Your task to perform on an android device: find which apps use the phone's location Image 0: 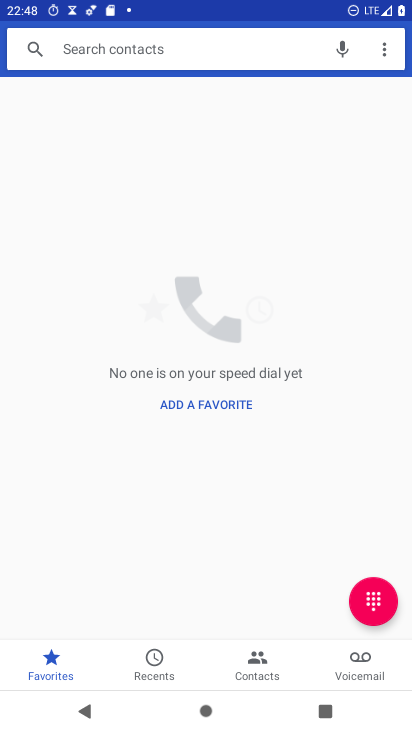
Step 0: press back button
Your task to perform on an android device: find which apps use the phone's location Image 1: 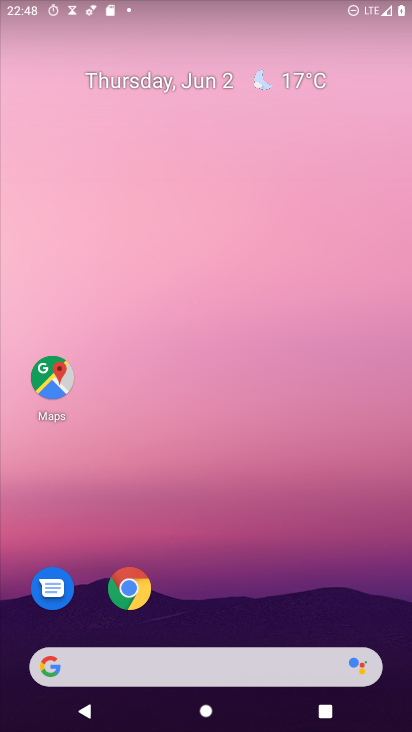
Step 1: drag from (232, 623) to (257, 104)
Your task to perform on an android device: find which apps use the phone's location Image 2: 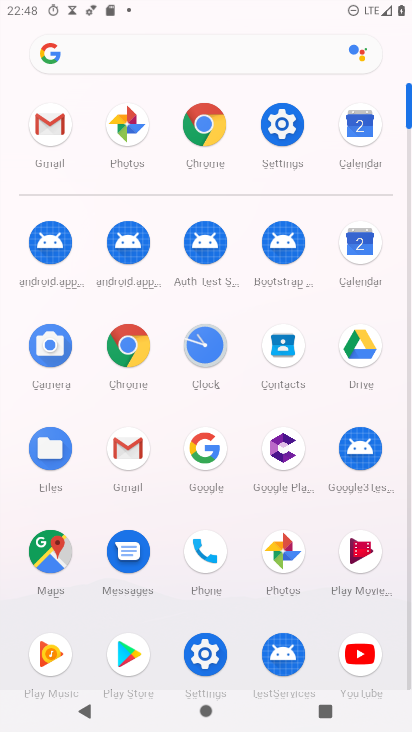
Step 2: click (205, 661)
Your task to perform on an android device: find which apps use the phone's location Image 3: 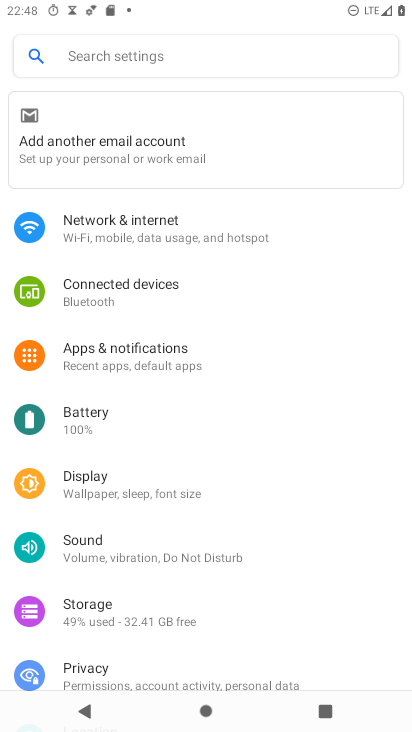
Step 3: drag from (111, 615) to (193, 131)
Your task to perform on an android device: find which apps use the phone's location Image 4: 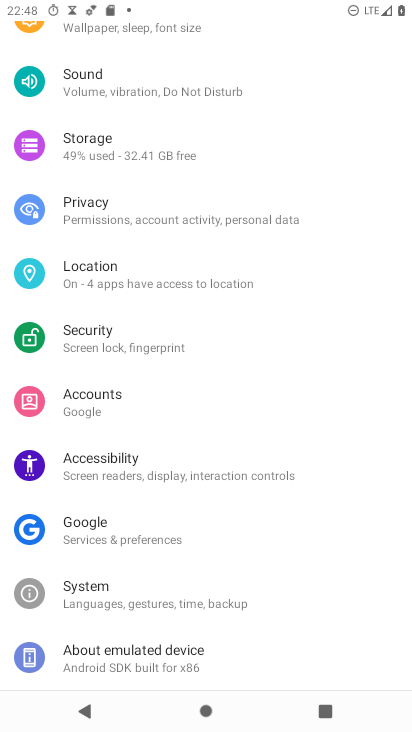
Step 4: click (133, 281)
Your task to perform on an android device: find which apps use the phone's location Image 5: 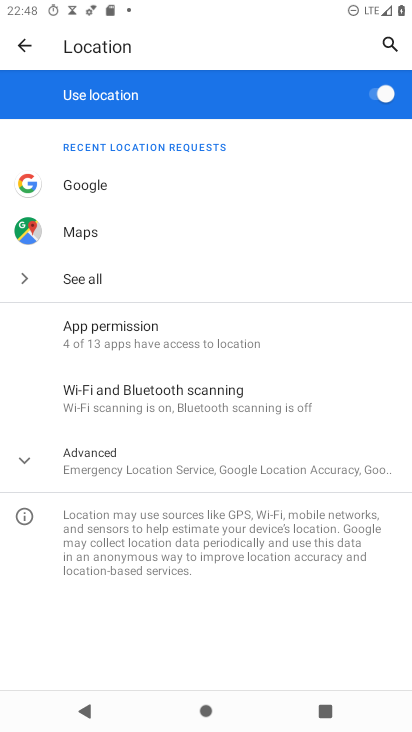
Step 5: click (147, 336)
Your task to perform on an android device: find which apps use the phone's location Image 6: 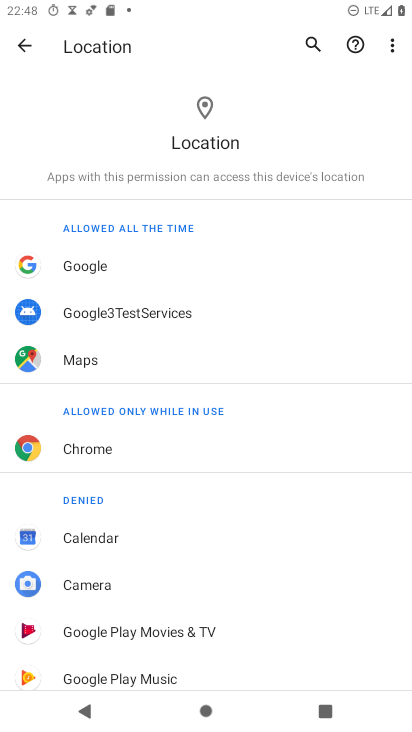
Step 6: task complete